Your task to perform on an android device: Show me productivity apps on the Play Store Image 0: 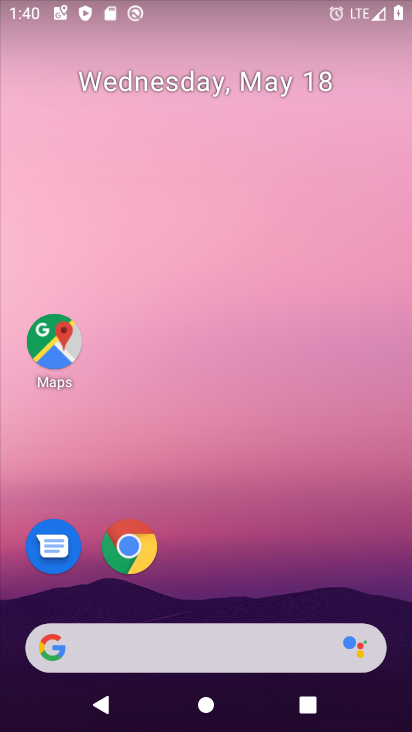
Step 0: drag from (206, 474) to (214, 1)
Your task to perform on an android device: Show me productivity apps on the Play Store Image 1: 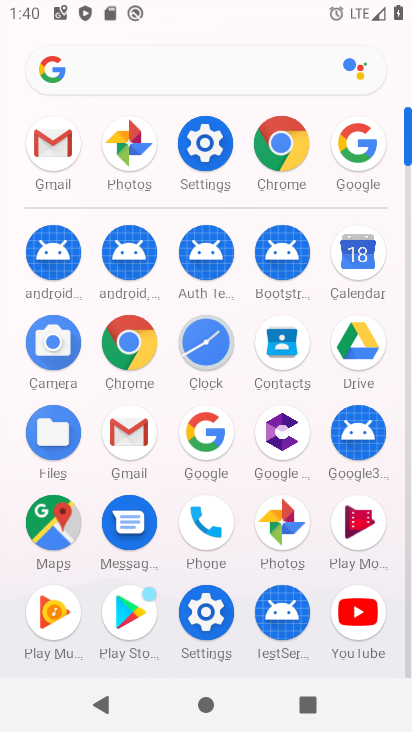
Step 1: drag from (205, 412) to (201, 75)
Your task to perform on an android device: Show me productivity apps on the Play Store Image 2: 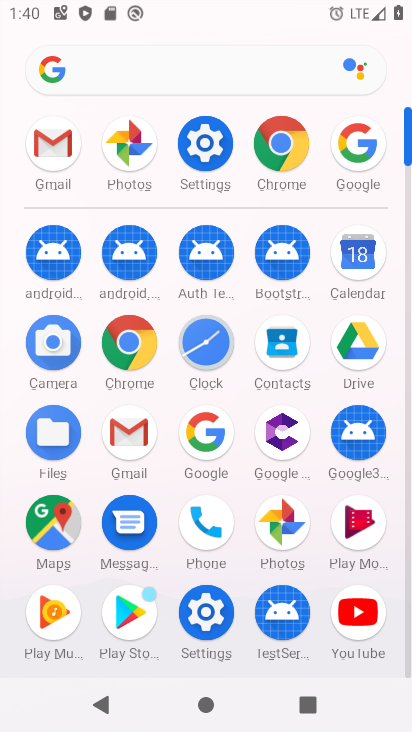
Step 2: click (133, 601)
Your task to perform on an android device: Show me productivity apps on the Play Store Image 3: 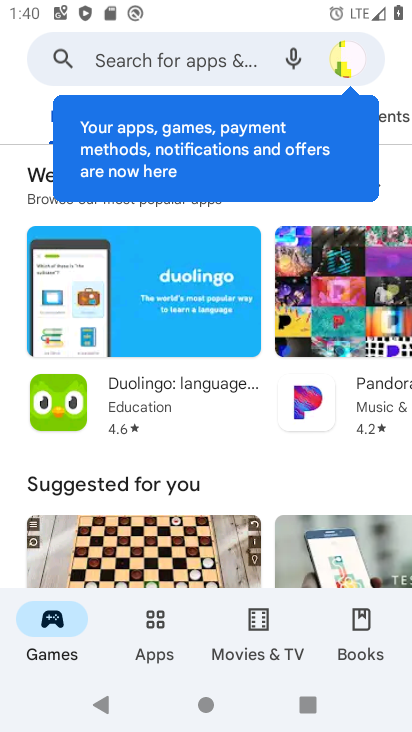
Step 3: click (135, 60)
Your task to perform on an android device: Show me productivity apps on the Play Store Image 4: 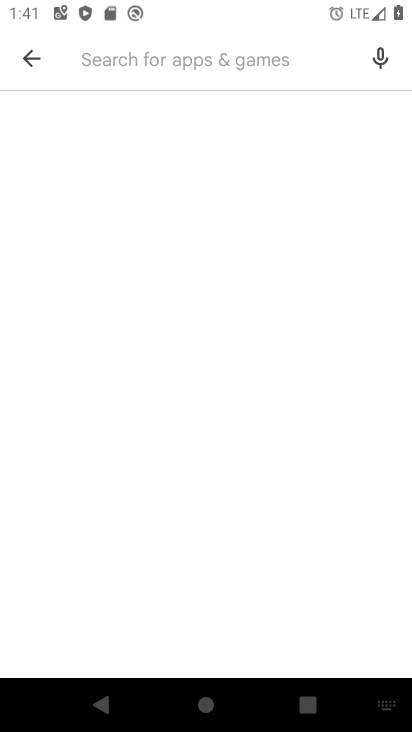
Step 4: type "productivity"
Your task to perform on an android device: Show me productivity apps on the Play Store Image 5: 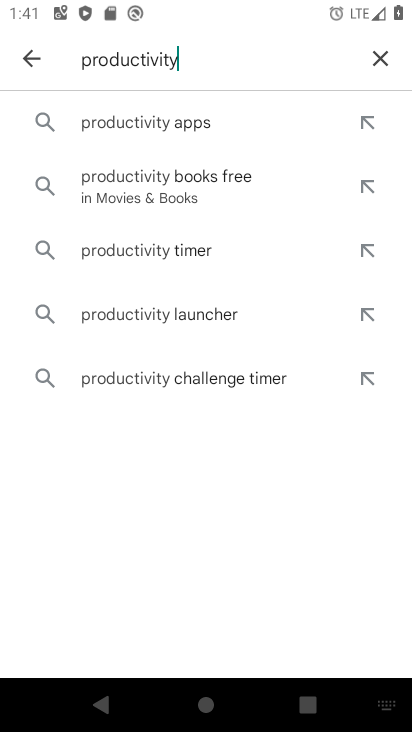
Step 5: click (316, 114)
Your task to perform on an android device: Show me productivity apps on the Play Store Image 6: 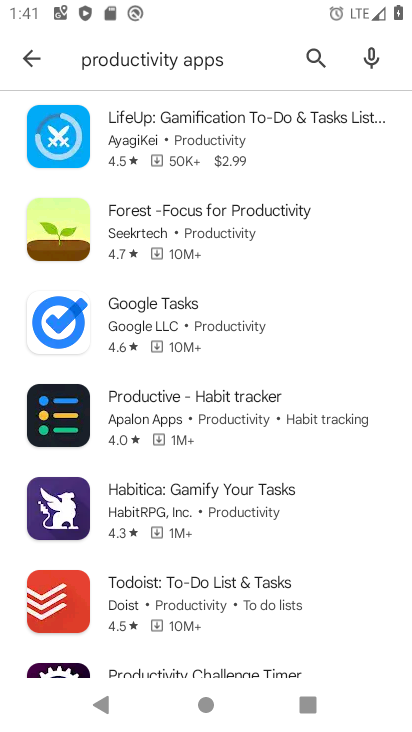
Step 6: task complete